Your task to perform on an android device: toggle pop-ups in chrome Image 0: 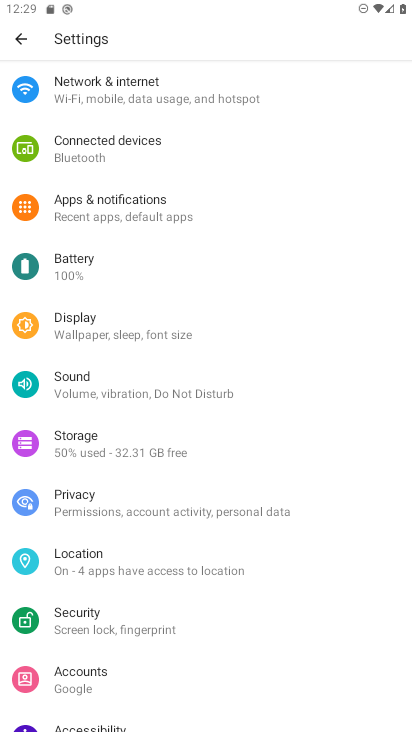
Step 0: press home button
Your task to perform on an android device: toggle pop-ups in chrome Image 1: 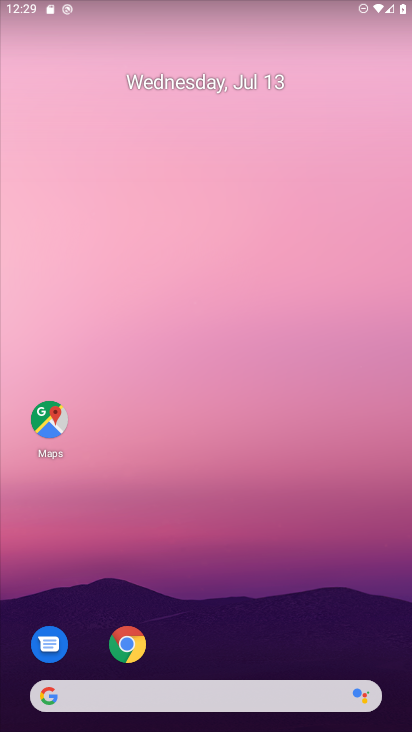
Step 1: click (133, 647)
Your task to perform on an android device: toggle pop-ups in chrome Image 2: 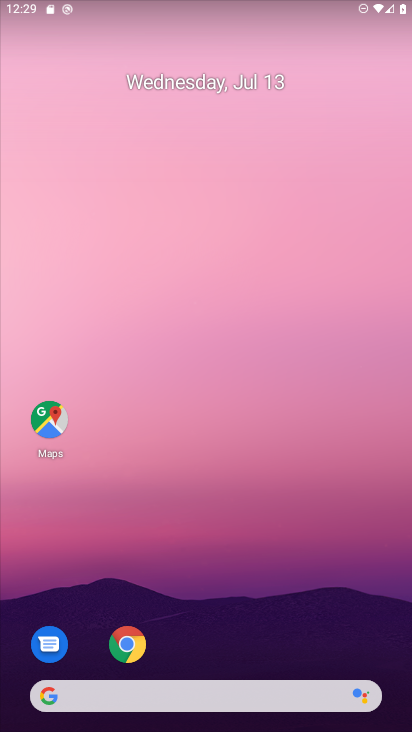
Step 2: click (133, 648)
Your task to perform on an android device: toggle pop-ups in chrome Image 3: 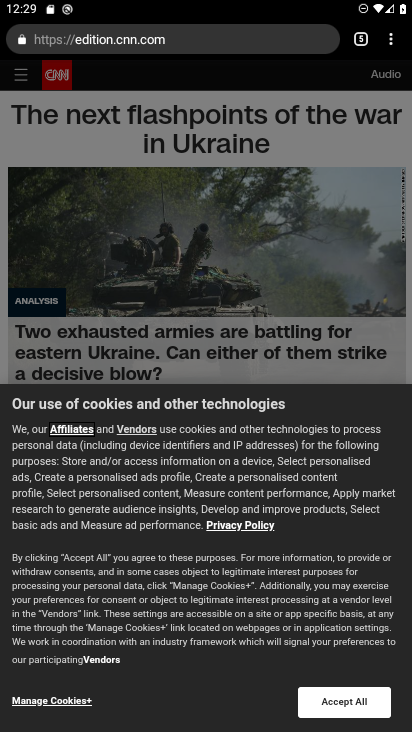
Step 3: click (391, 39)
Your task to perform on an android device: toggle pop-ups in chrome Image 4: 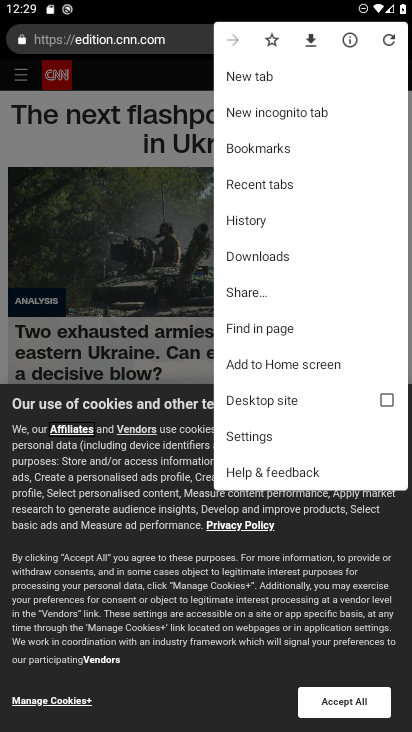
Step 4: click (250, 433)
Your task to perform on an android device: toggle pop-ups in chrome Image 5: 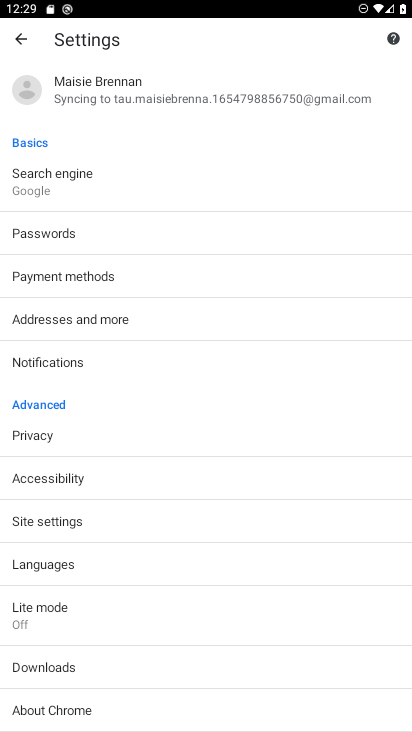
Step 5: click (81, 522)
Your task to perform on an android device: toggle pop-ups in chrome Image 6: 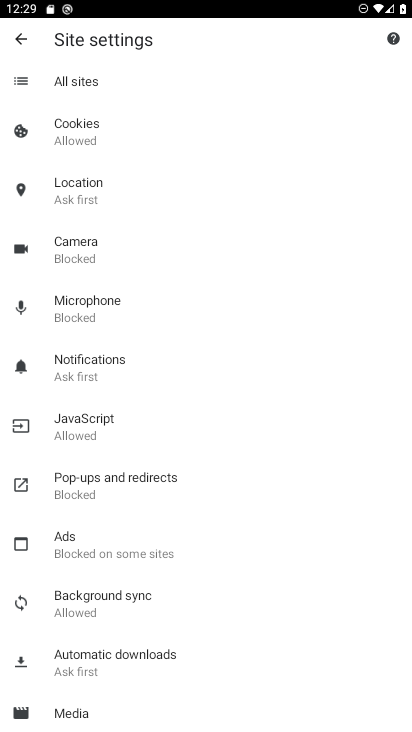
Step 6: click (86, 482)
Your task to perform on an android device: toggle pop-ups in chrome Image 7: 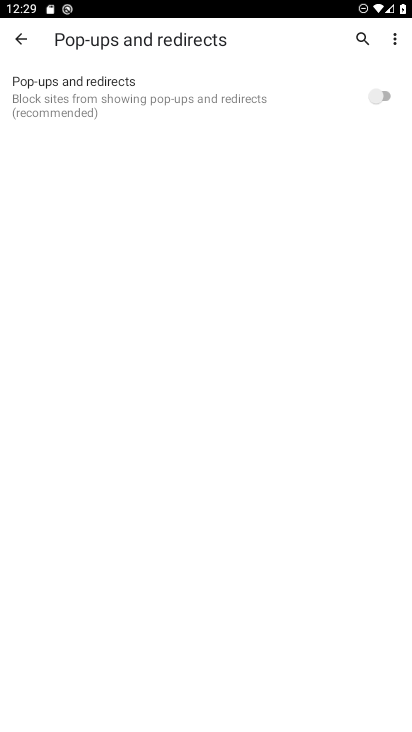
Step 7: click (383, 95)
Your task to perform on an android device: toggle pop-ups in chrome Image 8: 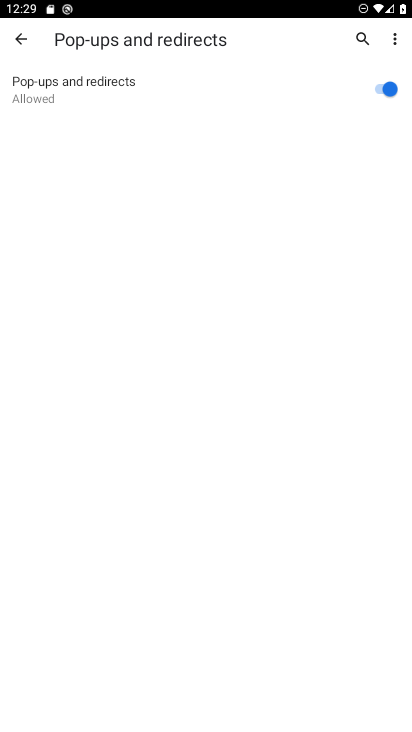
Step 8: task complete